Your task to perform on an android device: Is it going to rain this weekend? Image 0: 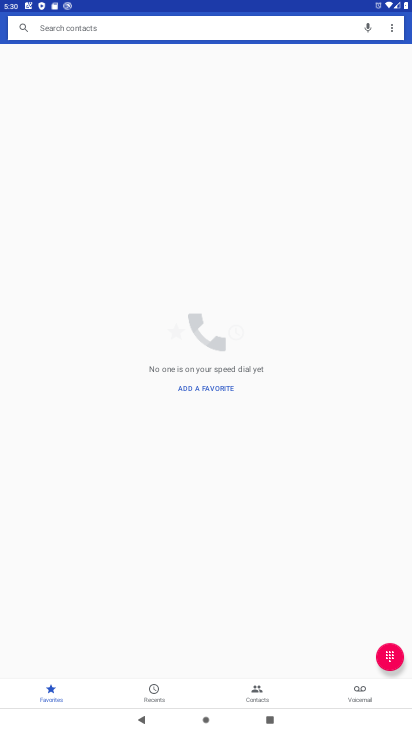
Step 0: drag from (200, 657) to (167, 104)
Your task to perform on an android device: Is it going to rain this weekend? Image 1: 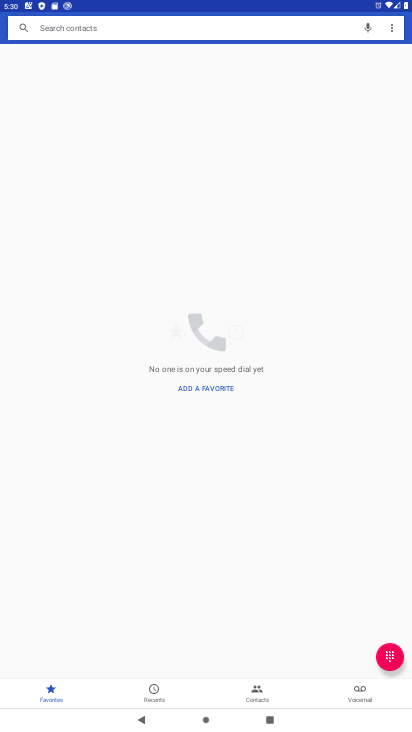
Step 1: press home button
Your task to perform on an android device: Is it going to rain this weekend? Image 2: 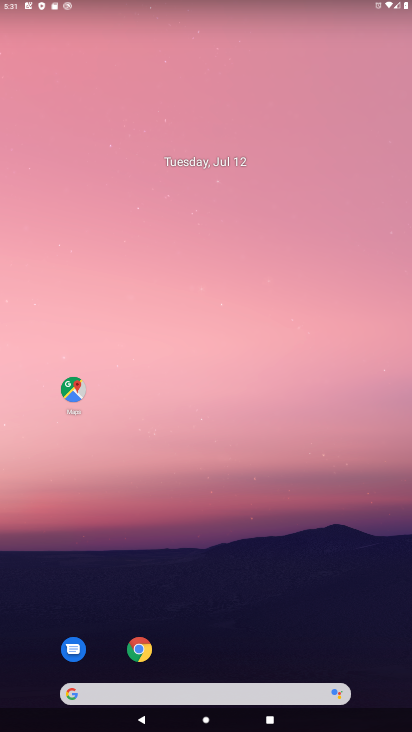
Step 2: drag from (165, 688) to (172, 156)
Your task to perform on an android device: Is it going to rain this weekend? Image 3: 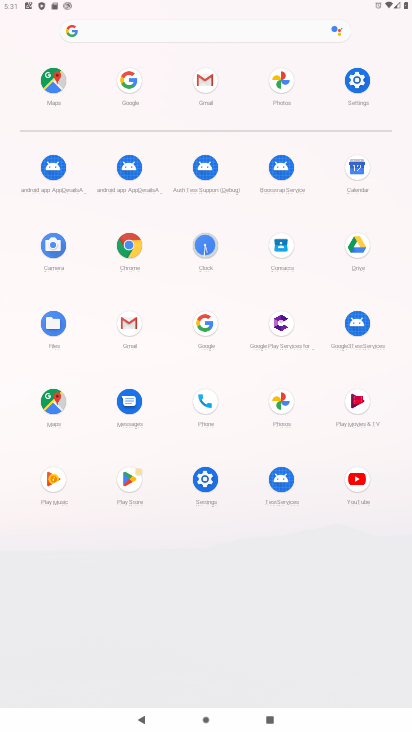
Step 3: click (203, 325)
Your task to perform on an android device: Is it going to rain this weekend? Image 4: 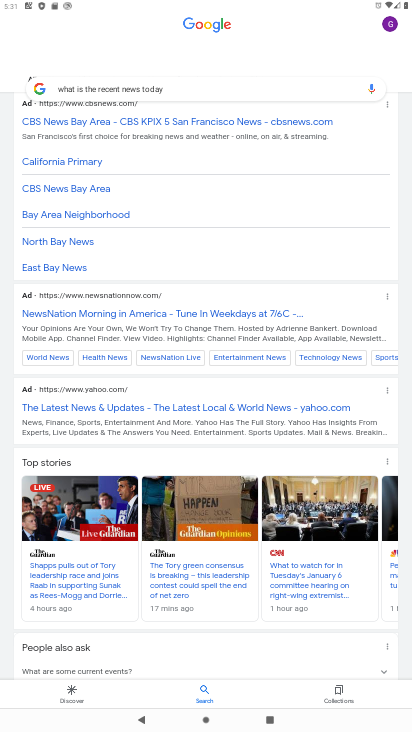
Step 4: click (181, 90)
Your task to perform on an android device: Is it going to rain this weekend? Image 5: 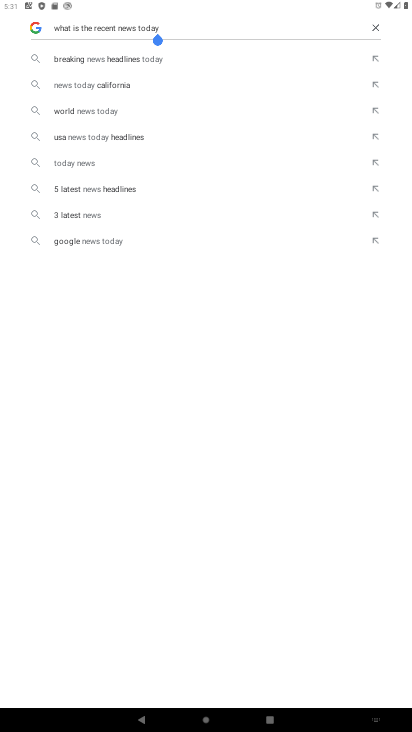
Step 5: click (377, 28)
Your task to perform on an android device: Is it going to rain this weekend? Image 6: 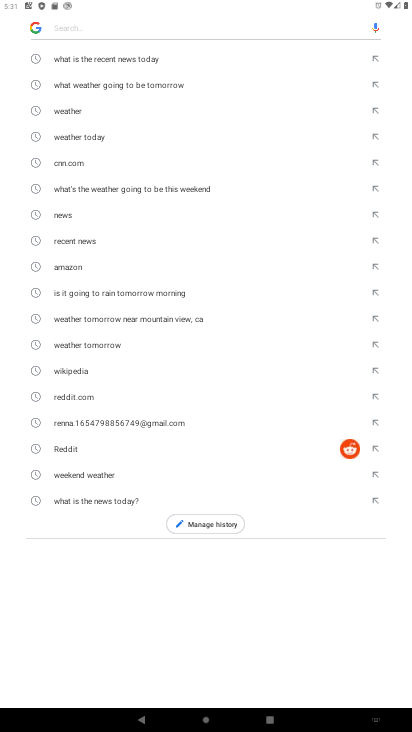
Step 6: type "Is it going to rain this weekend?"
Your task to perform on an android device: Is it going to rain this weekend? Image 7: 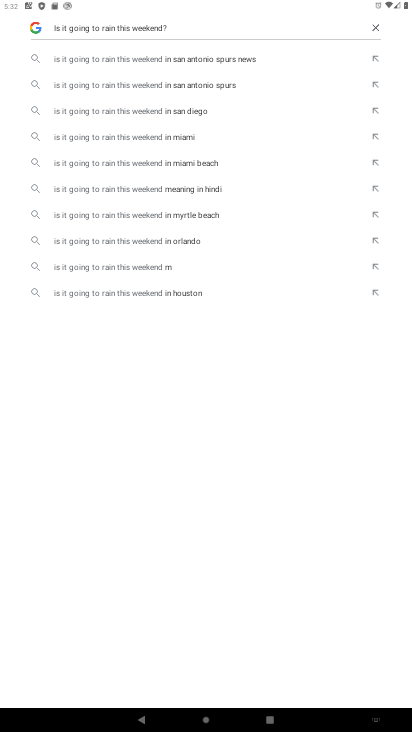
Step 7: click (104, 89)
Your task to perform on an android device: Is it going to rain this weekend? Image 8: 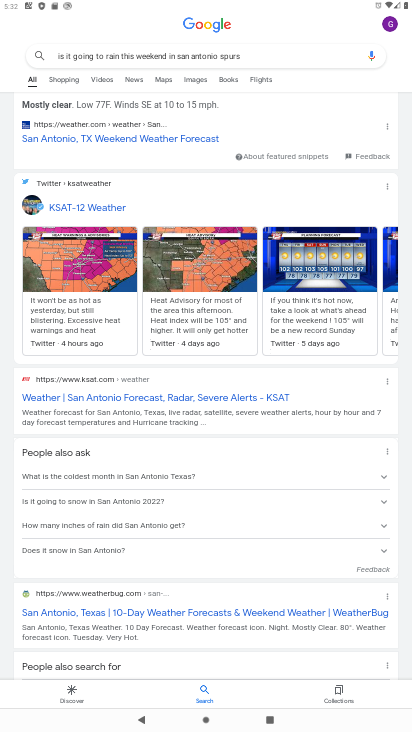
Step 8: click (98, 141)
Your task to perform on an android device: Is it going to rain this weekend? Image 9: 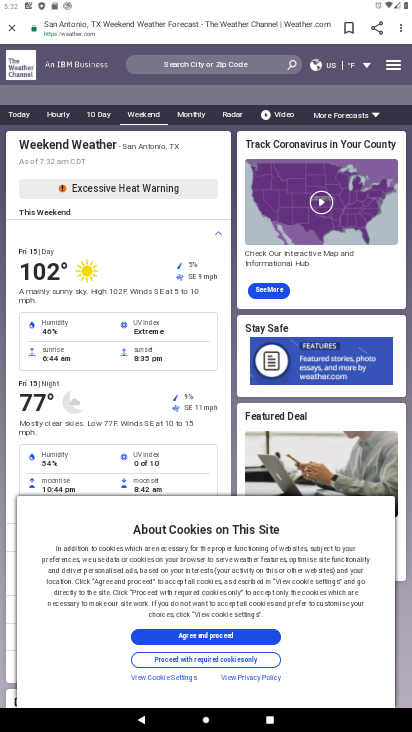
Step 9: task complete